Your task to perform on an android device: Open accessibility settings Image 0: 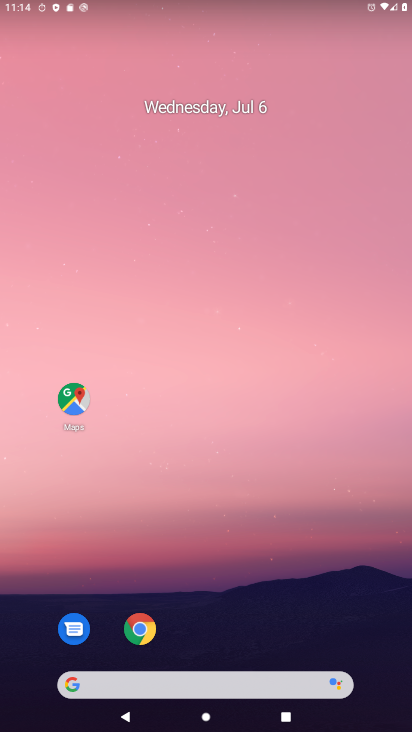
Step 0: drag from (236, 605) to (276, 50)
Your task to perform on an android device: Open accessibility settings Image 1: 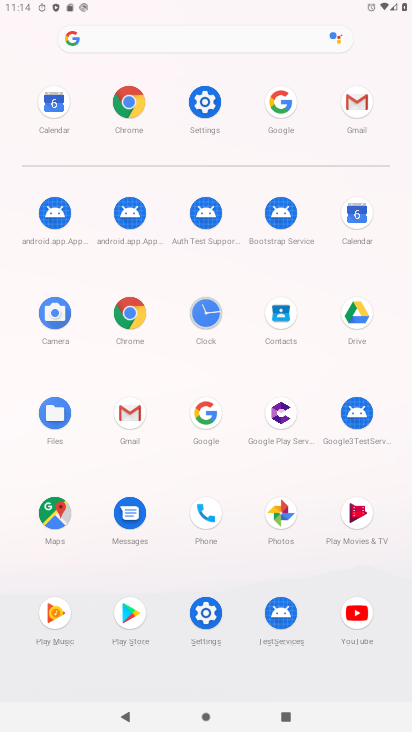
Step 1: click (210, 107)
Your task to perform on an android device: Open accessibility settings Image 2: 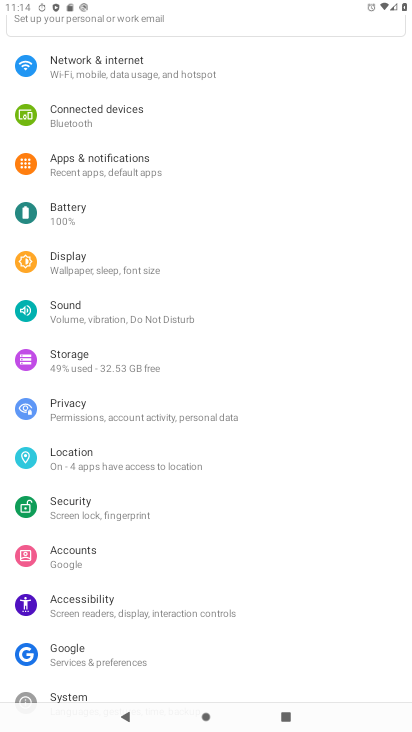
Step 2: click (69, 598)
Your task to perform on an android device: Open accessibility settings Image 3: 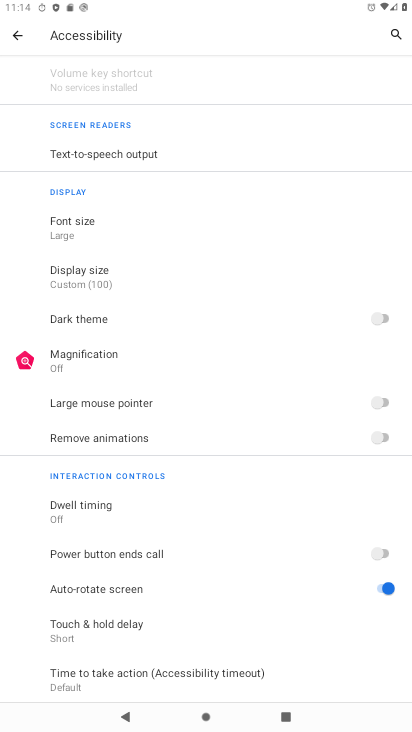
Step 3: task complete